Your task to perform on an android device: What's the weather going to be this weekend? Image 0: 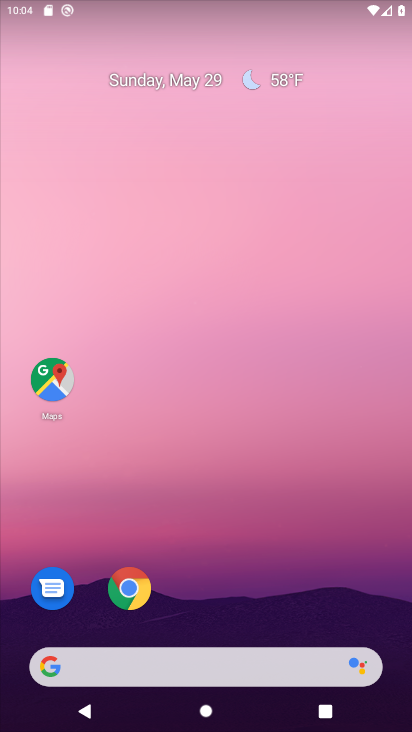
Step 0: drag from (16, 249) to (410, 592)
Your task to perform on an android device: What's the weather going to be this weekend? Image 1: 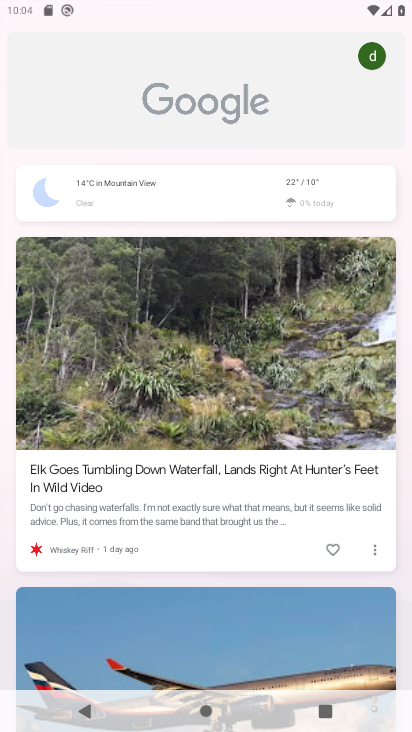
Step 1: click (145, 205)
Your task to perform on an android device: What's the weather going to be this weekend? Image 2: 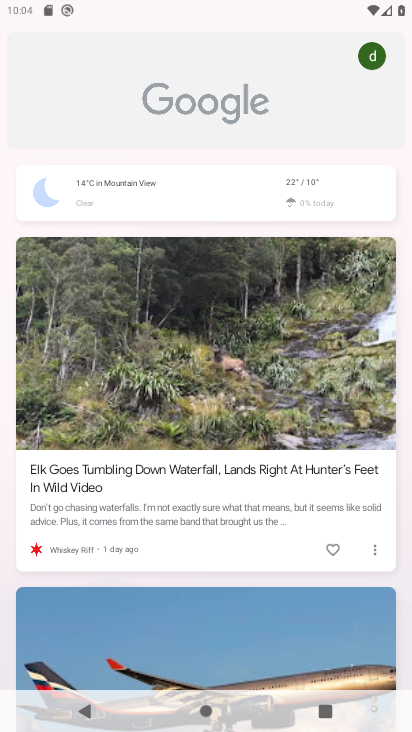
Step 2: click (146, 203)
Your task to perform on an android device: What's the weather going to be this weekend? Image 3: 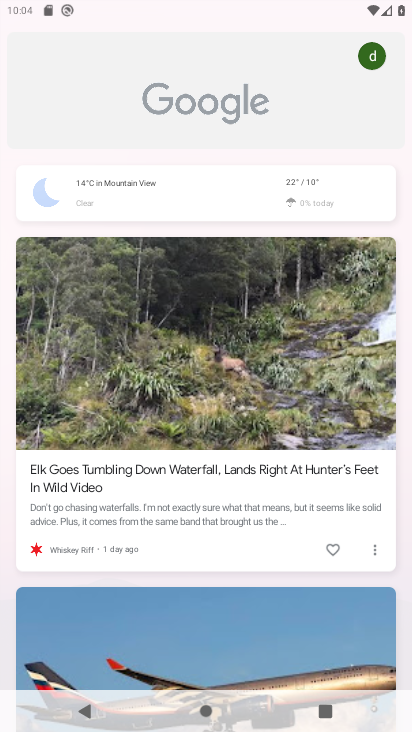
Step 3: click (147, 202)
Your task to perform on an android device: What's the weather going to be this weekend? Image 4: 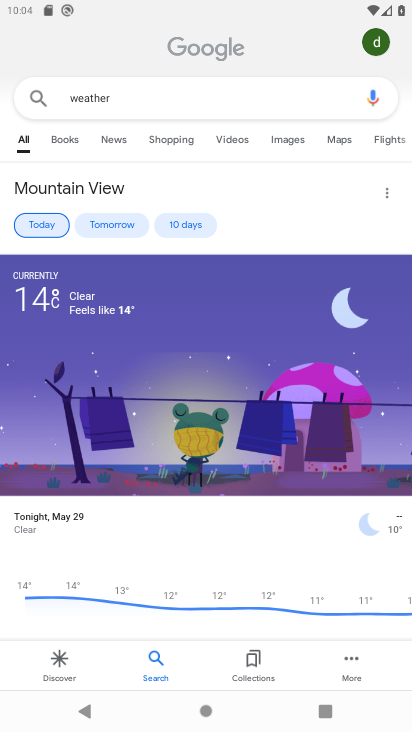
Step 4: task complete